Your task to perform on an android device: Search for 'The Girl on the Train' on Goodreads. Image 0: 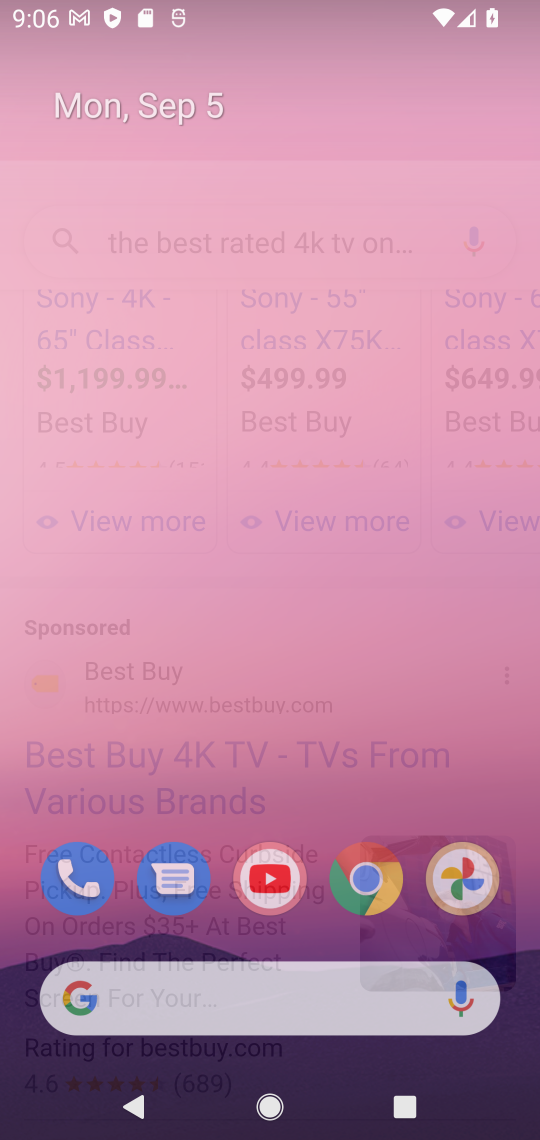
Step 0: press home button
Your task to perform on an android device: Search for 'The Girl on the Train' on Goodreads. Image 1: 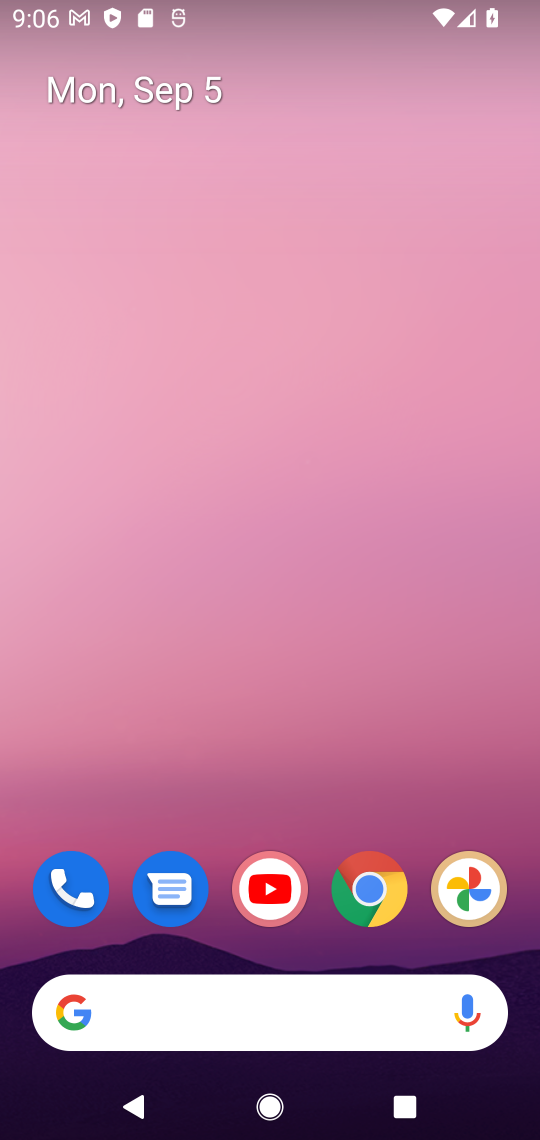
Step 1: click (249, 1013)
Your task to perform on an android device: Search for 'The Girl on the Train' on Goodreads. Image 2: 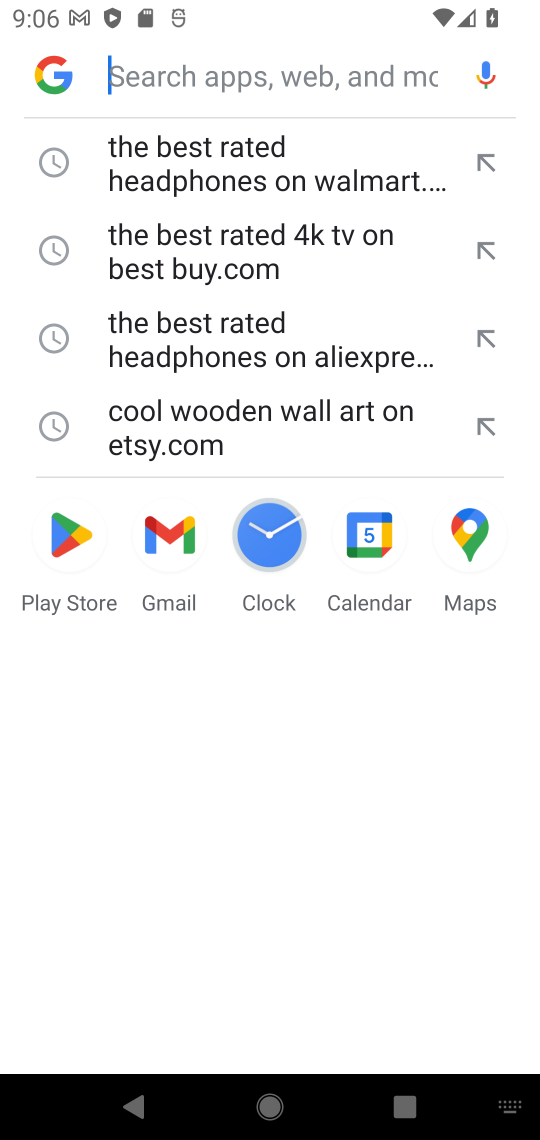
Step 2: type "The Girl on the Train' on Goodreads"
Your task to perform on an android device: Search for 'The Girl on the Train' on Goodreads. Image 3: 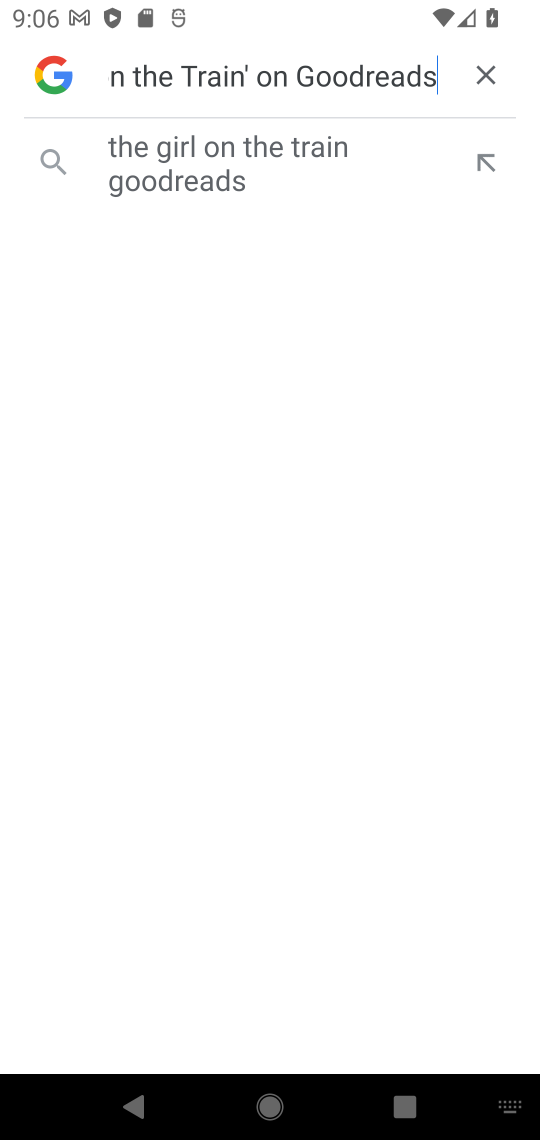
Step 3: click (178, 166)
Your task to perform on an android device: Search for 'The Girl on the Train' on Goodreads. Image 4: 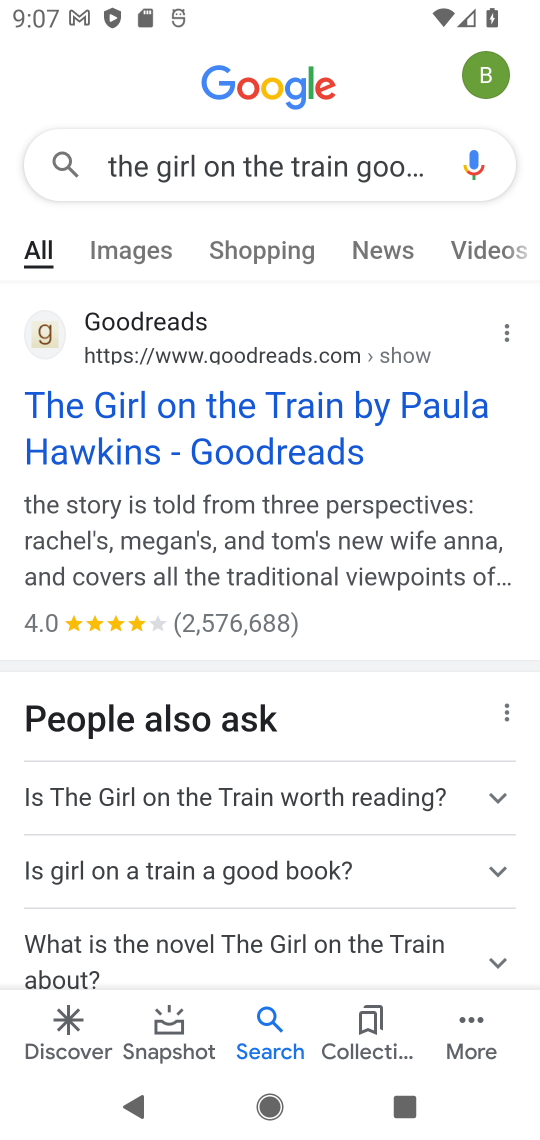
Step 4: click (104, 166)
Your task to perform on an android device: Search for 'The Girl on the Train' on Goodreads. Image 5: 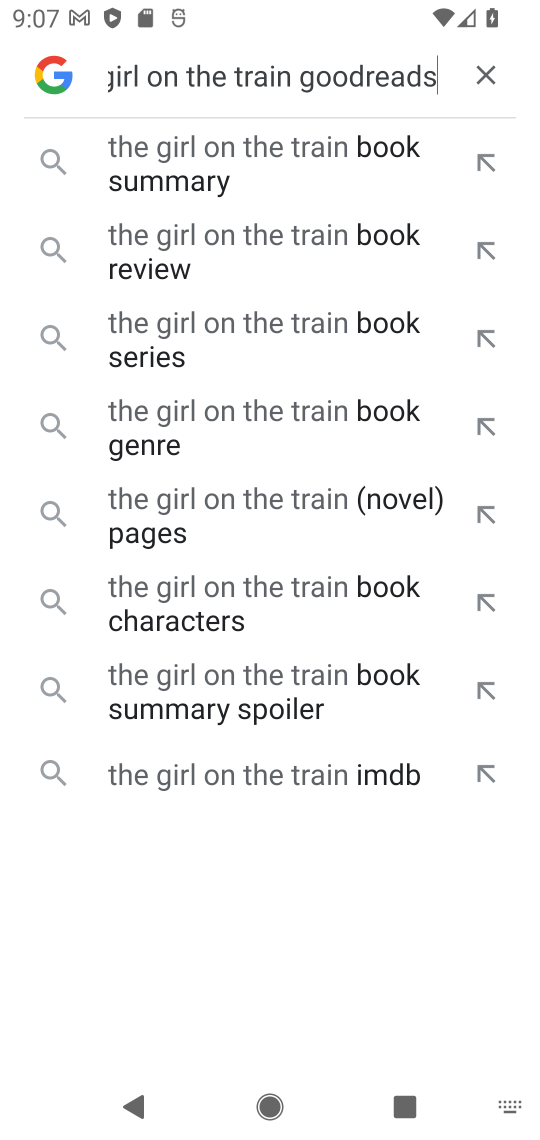
Step 5: click (112, 166)
Your task to perform on an android device: Search for 'The Girl on the Train' on Goodreads. Image 6: 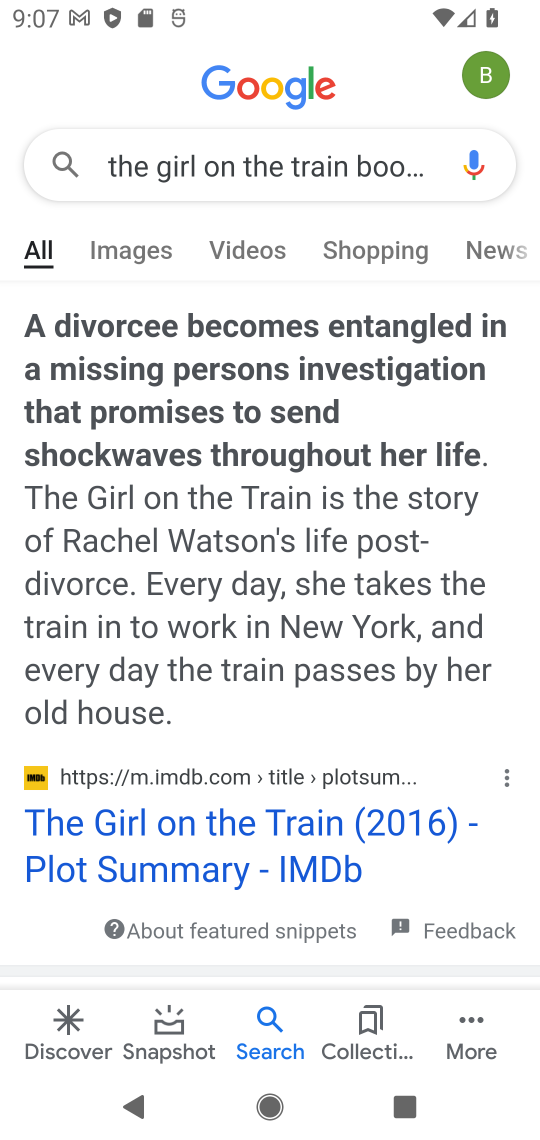
Step 6: click (88, 166)
Your task to perform on an android device: Search for 'The Girl on the Train' on Goodreads. Image 7: 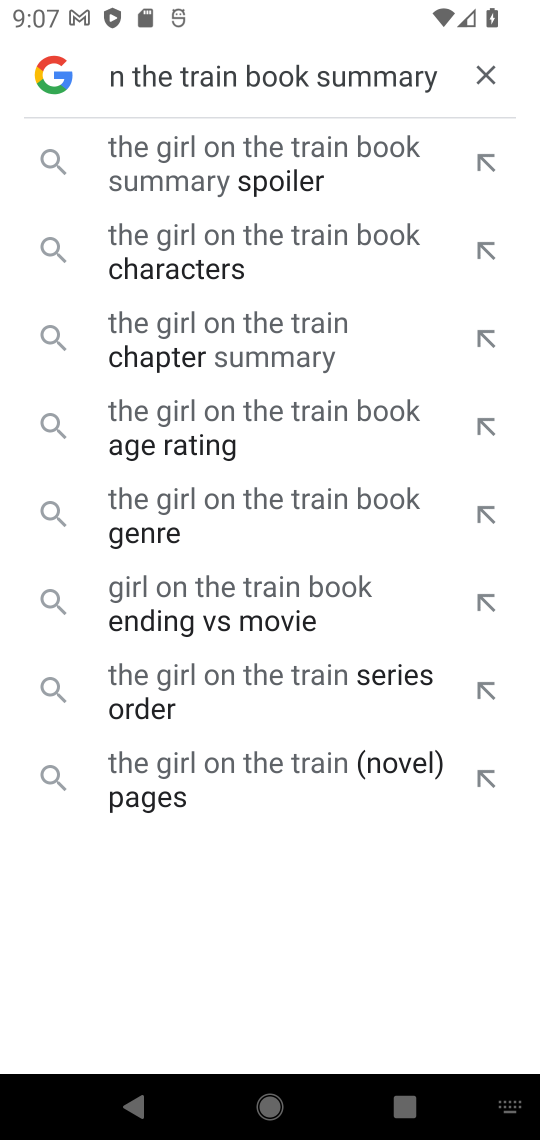
Step 7: click (219, 90)
Your task to perform on an android device: Search for 'The Girl on the Train' on Goodreads. Image 8: 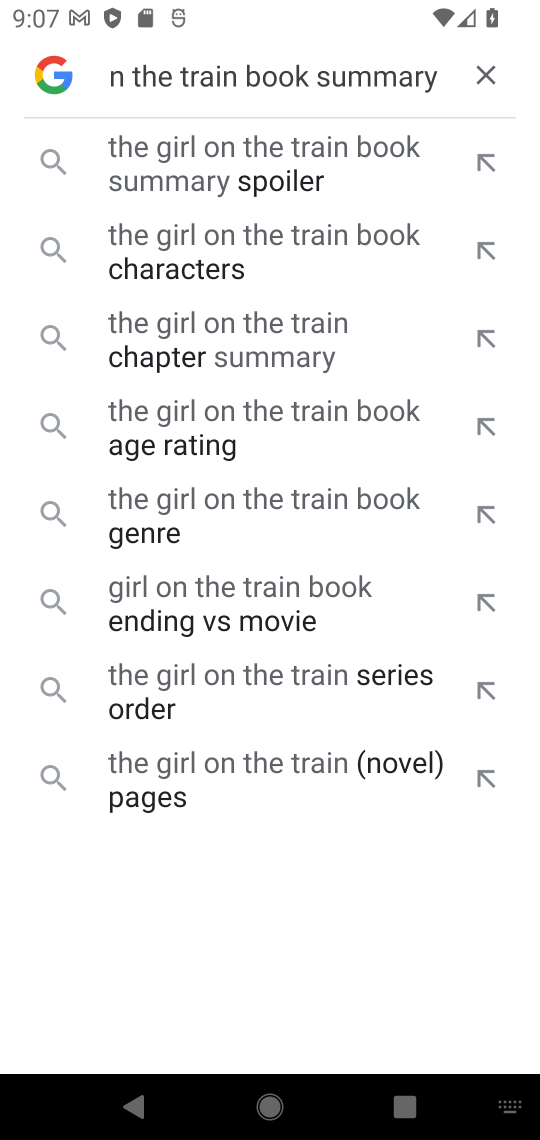
Step 8: click (488, 76)
Your task to perform on an android device: Search for 'The Girl on the Train' on Goodreads. Image 9: 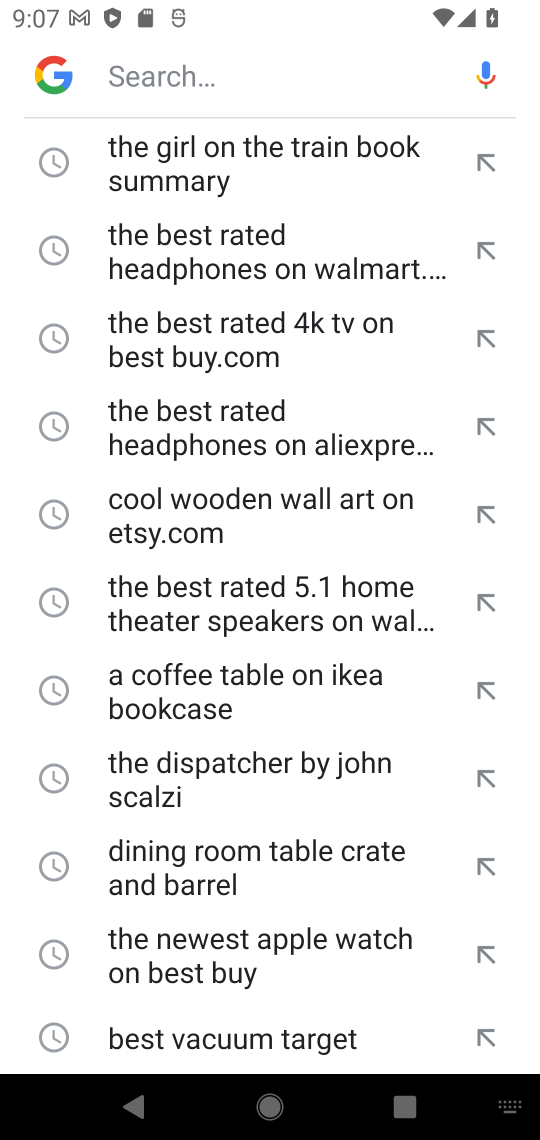
Step 9: click (183, 78)
Your task to perform on an android device: Search for 'The Girl on the Train' on Goodreads. Image 10: 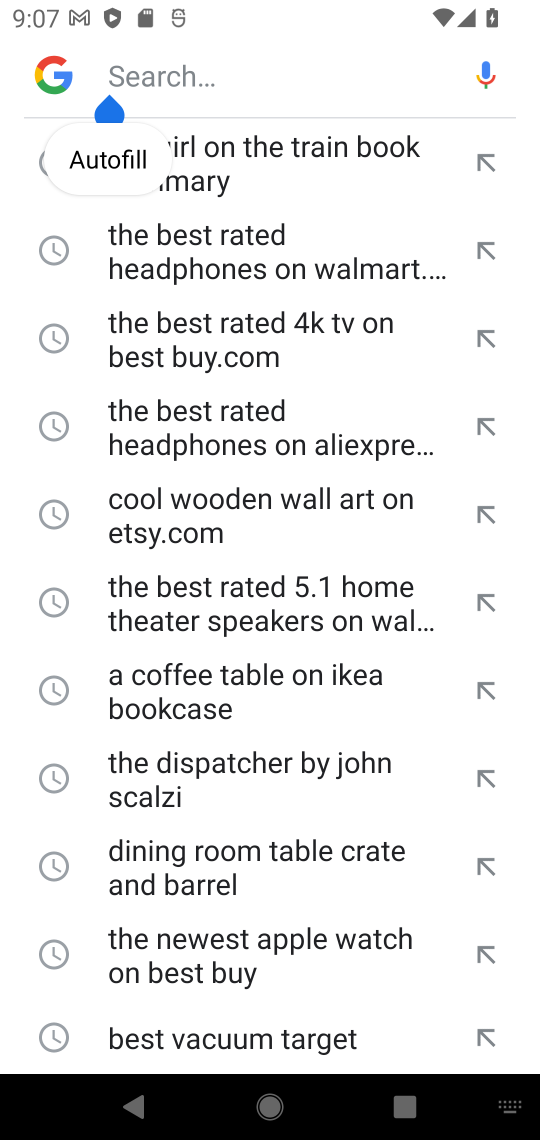
Step 10: click (183, 78)
Your task to perform on an android device: Search for 'The Girl on the Train' on Goodreads. Image 11: 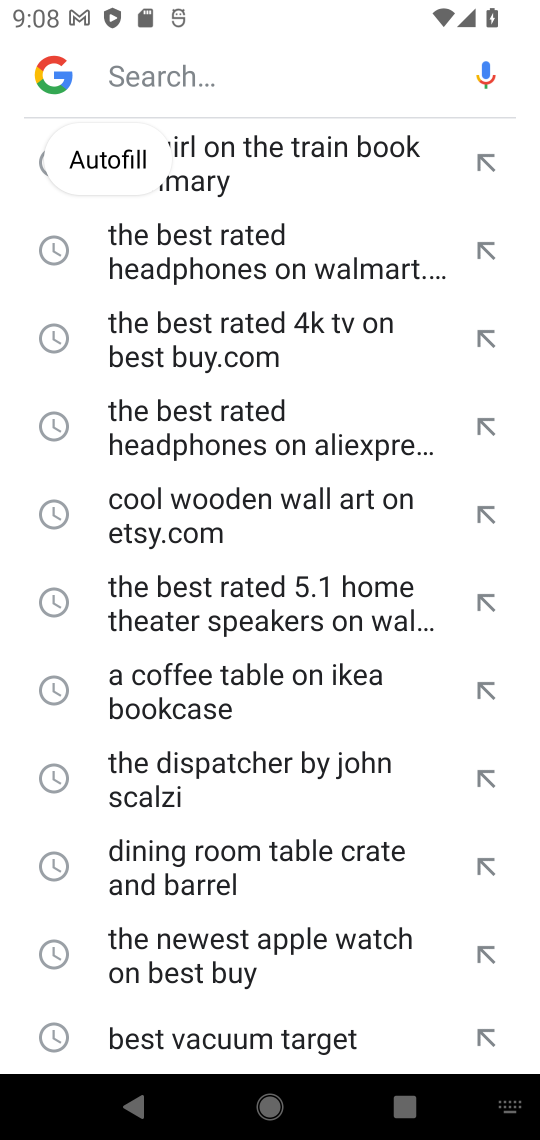
Step 11: type "The Girl on the Train on Goodreads"
Your task to perform on an android device: Search for 'The Girl on the Train' on Goodreads. Image 12: 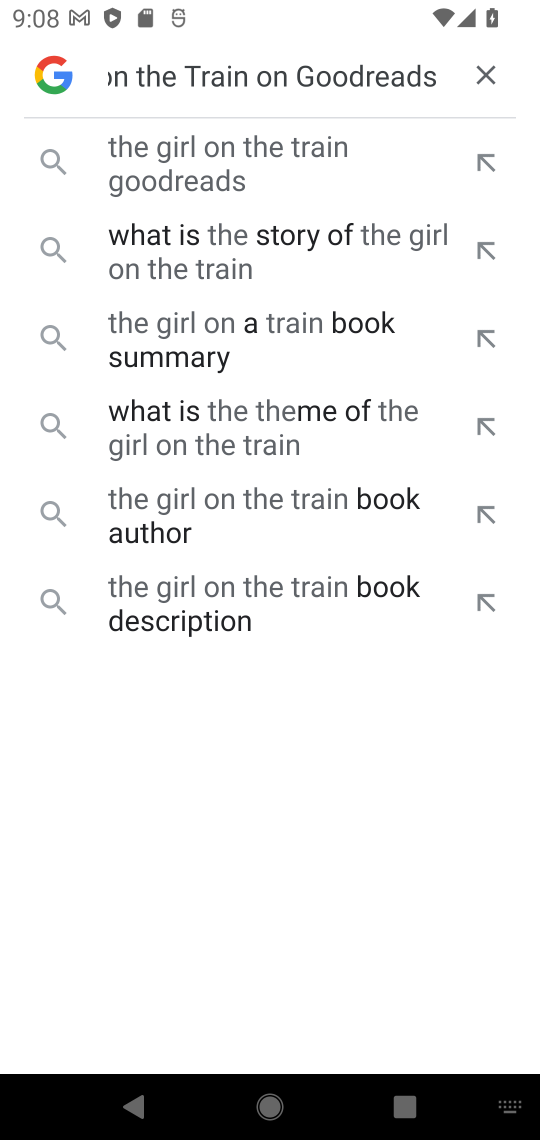
Step 12: click (250, 183)
Your task to perform on an android device: Search for 'The Girl on the Train' on Goodreads. Image 13: 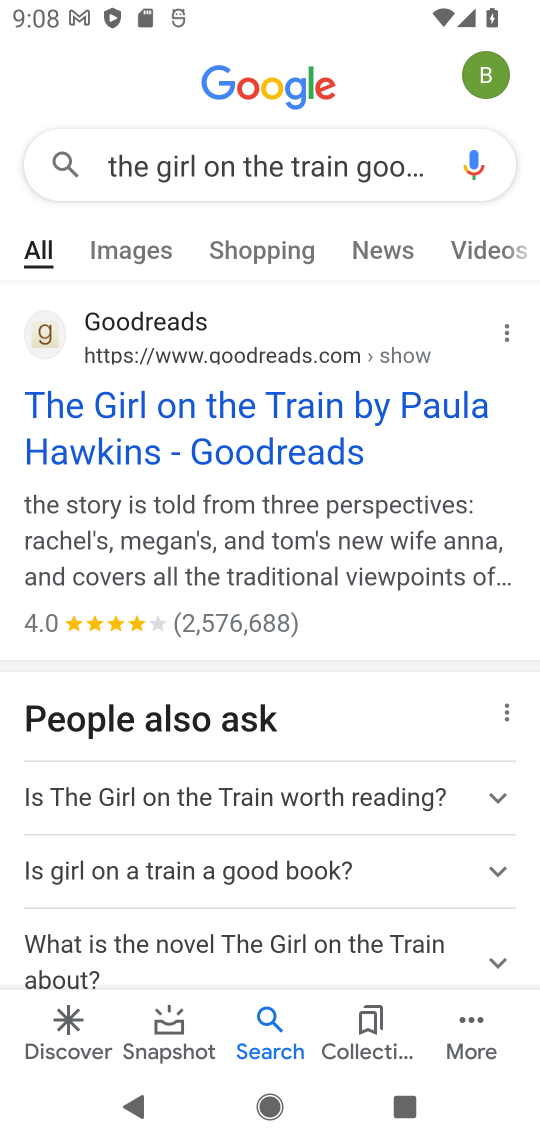
Step 13: click (413, 171)
Your task to perform on an android device: Search for 'The Girl on the Train' on Goodreads. Image 14: 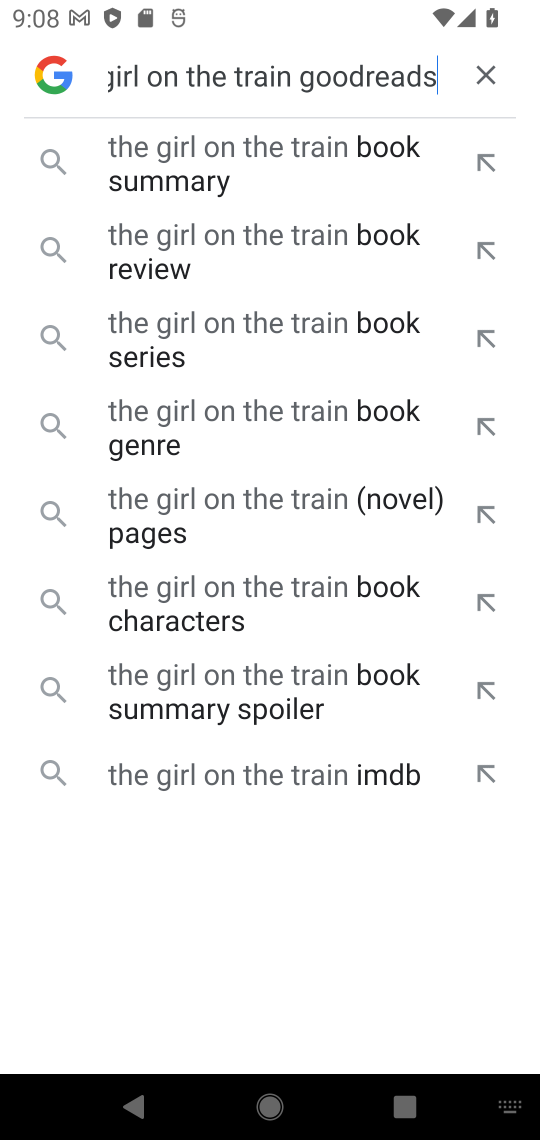
Step 14: click (201, 66)
Your task to perform on an android device: Search for 'The Girl on the Train' on Goodreads. Image 15: 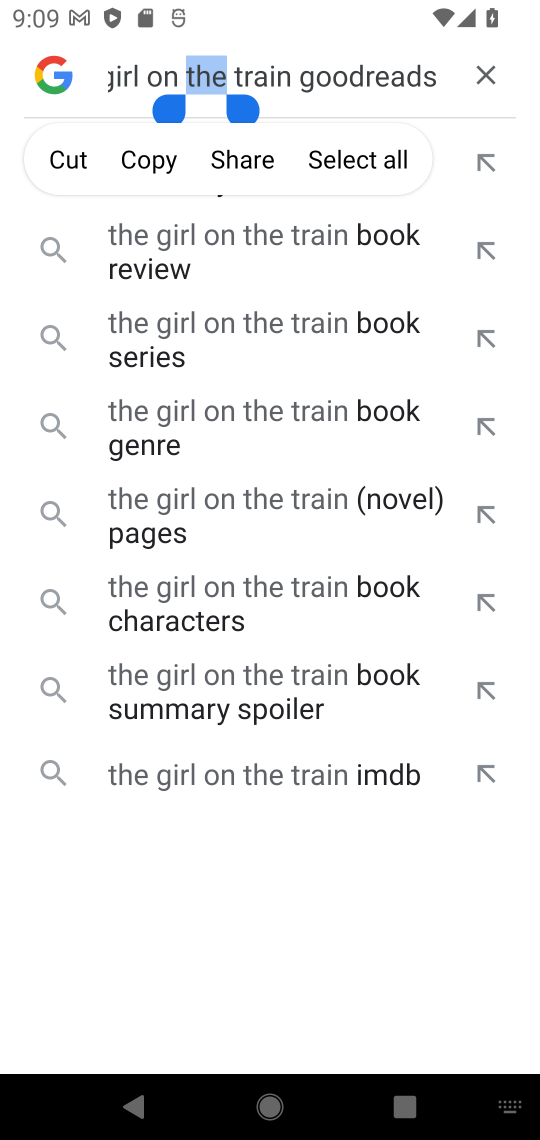
Step 15: click (260, 83)
Your task to perform on an android device: Search for 'The Girl on the Train' on Goodreads. Image 16: 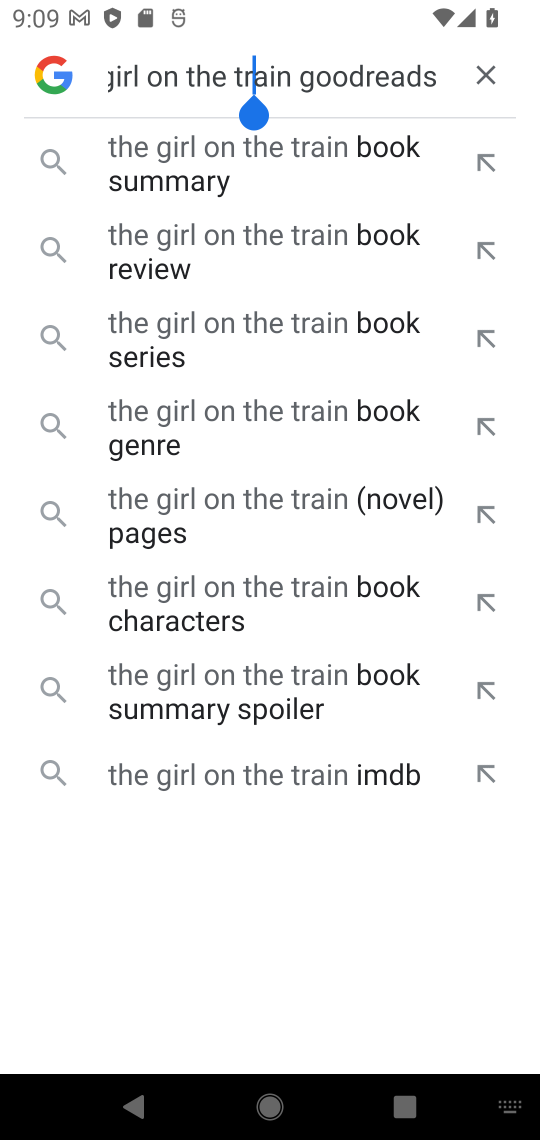
Step 16: click (260, 83)
Your task to perform on an android device: Search for 'The Girl on the Train' on Goodreads. Image 17: 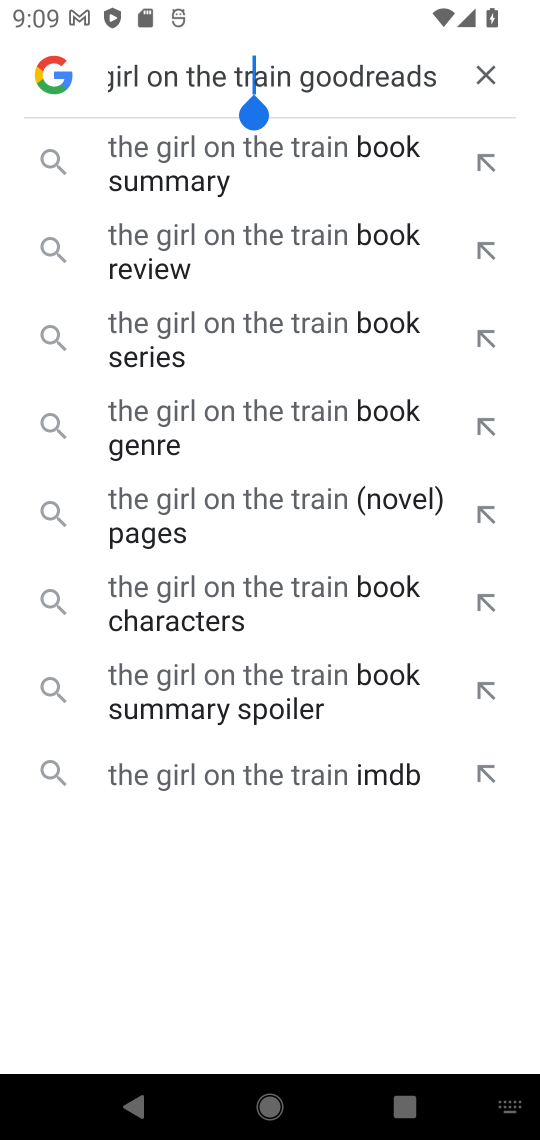
Step 17: click (264, 83)
Your task to perform on an android device: Search for 'The Girl on the Train' on Goodreads. Image 18: 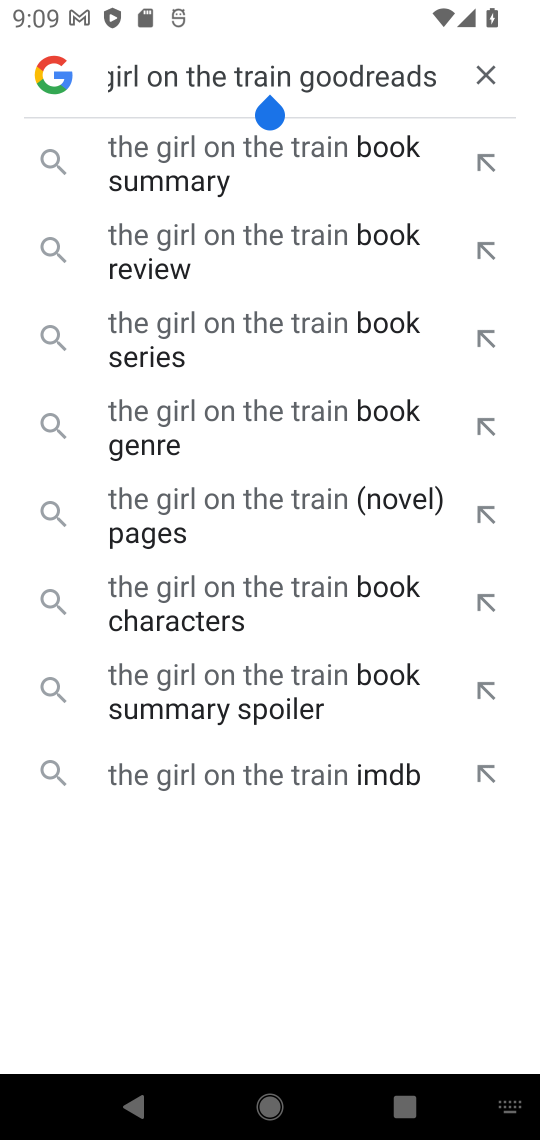
Step 18: click (264, 83)
Your task to perform on an android device: Search for 'The Girl on the Train' on Goodreads. Image 19: 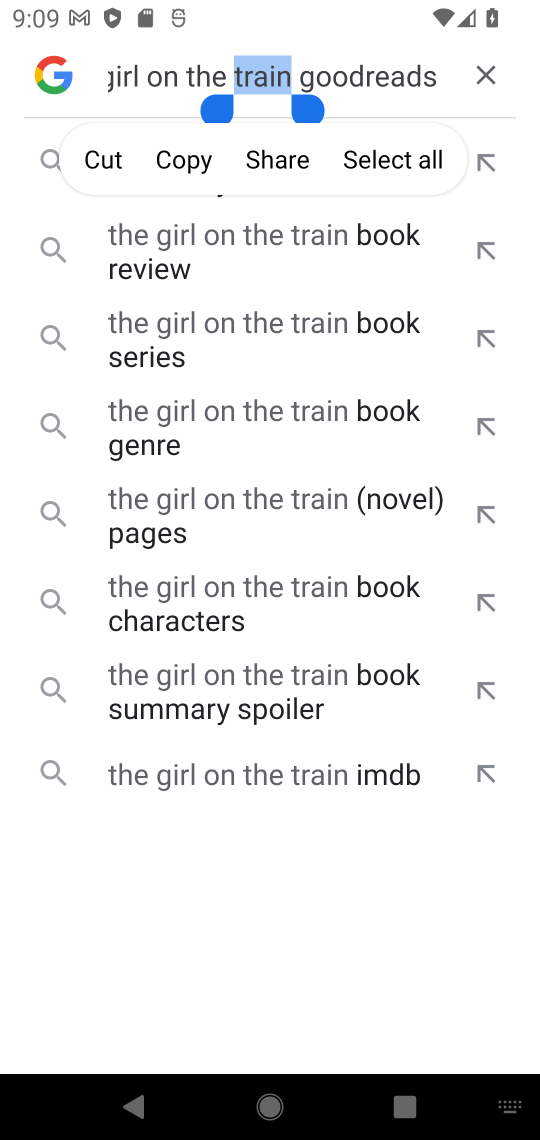
Step 19: click (374, 158)
Your task to perform on an android device: Search for 'The Girl on the Train' on Goodreads. Image 20: 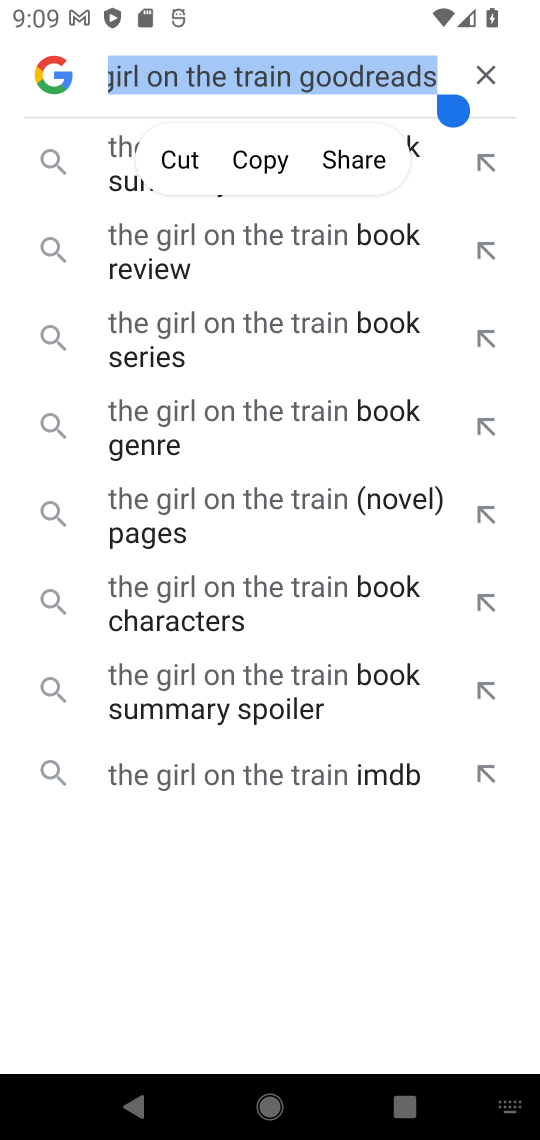
Step 20: click (269, 155)
Your task to perform on an android device: Search for 'The Girl on the Train' on Goodreads. Image 21: 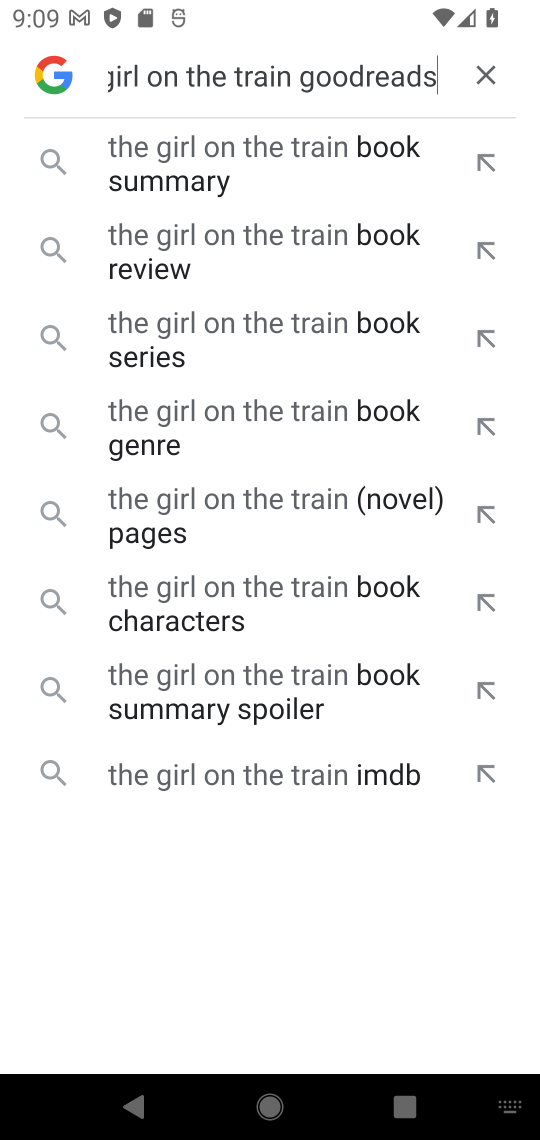
Step 21: click (478, 68)
Your task to perform on an android device: Search for 'The Girl on the Train' on Goodreads. Image 22: 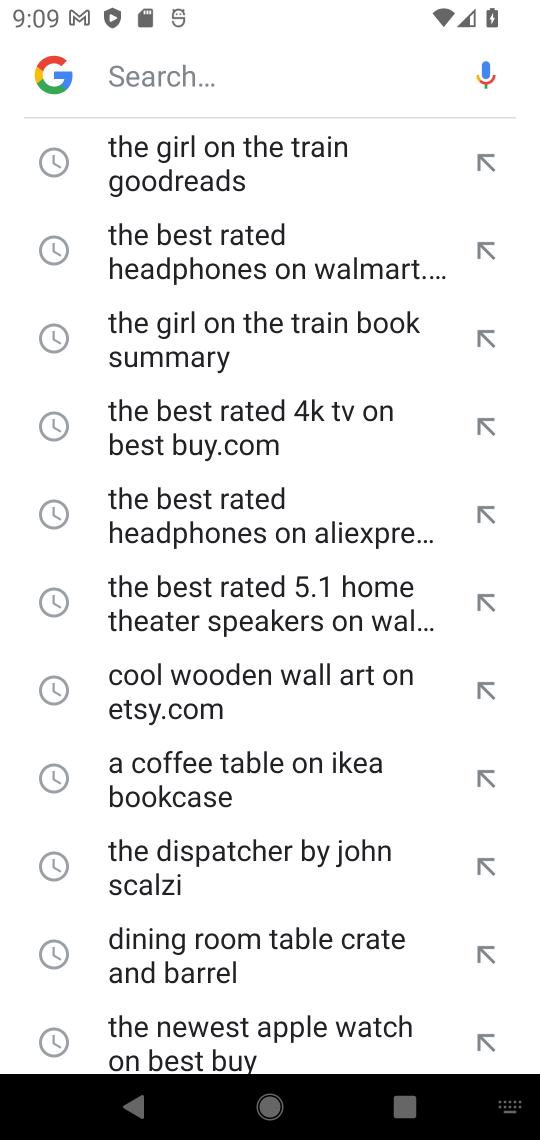
Step 22: type "The Girl on the Train' on Goodreads"
Your task to perform on an android device: Search for 'The Girl on the Train' on Goodreads. Image 23: 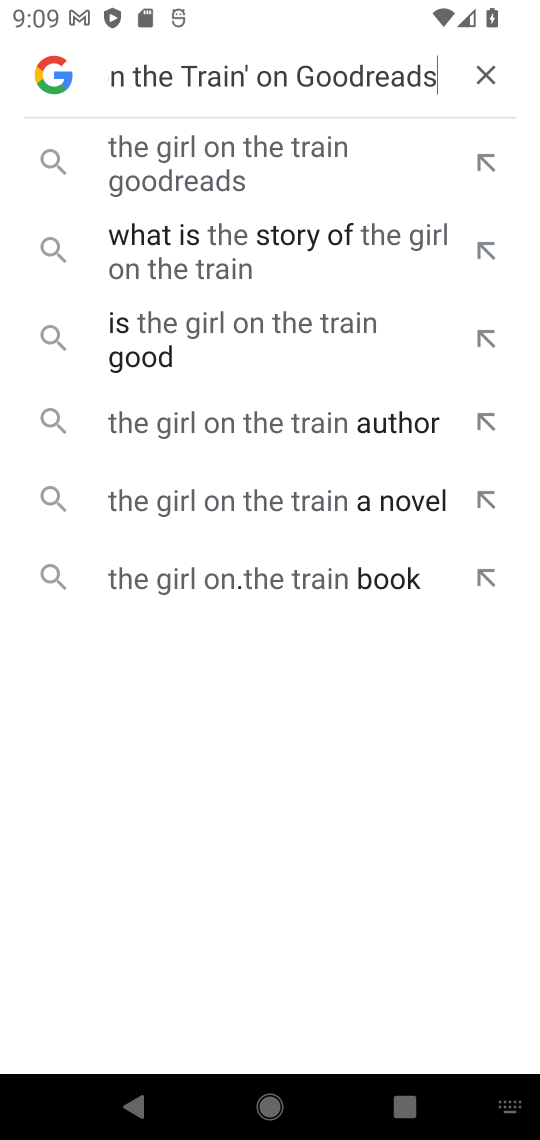
Step 23: click (203, 167)
Your task to perform on an android device: Search for 'The Girl on the Train' on Goodreads. Image 24: 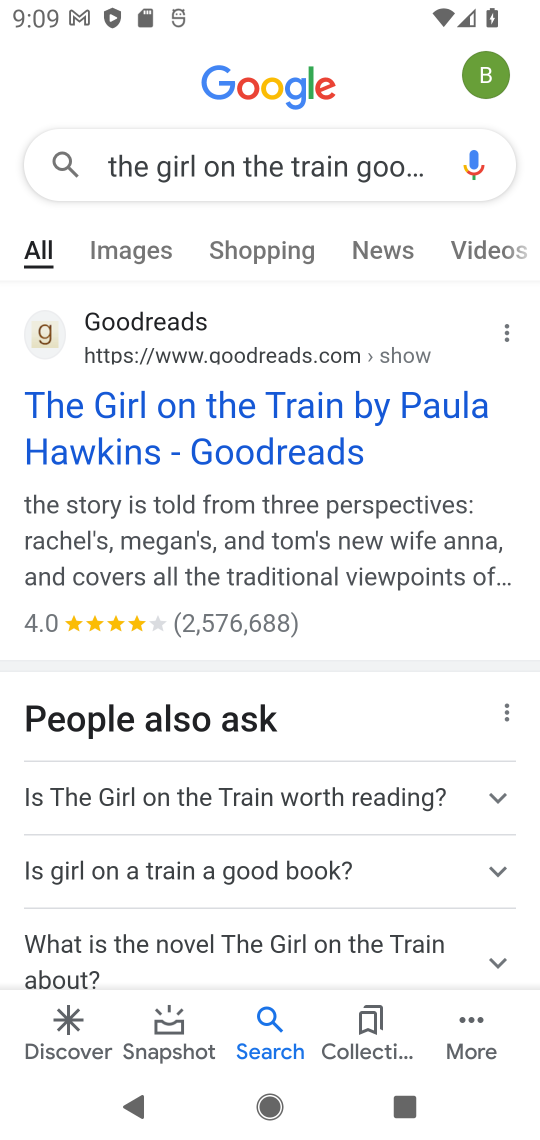
Step 24: drag from (398, 419) to (398, 329)
Your task to perform on an android device: Search for 'The Girl on the Train' on Goodreads. Image 25: 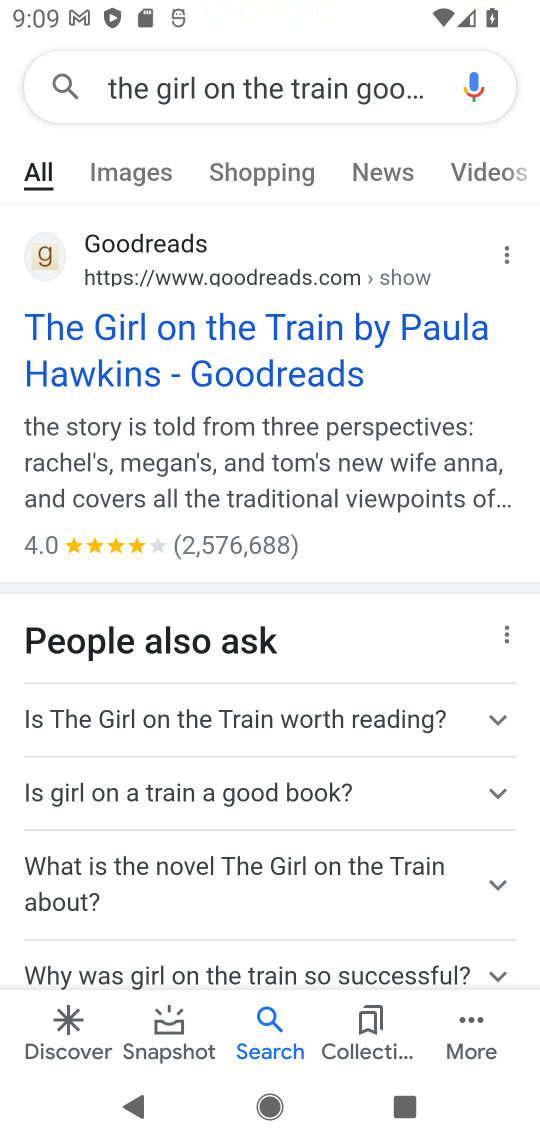
Step 25: drag from (328, 849) to (382, 351)
Your task to perform on an android device: Search for 'The Girl on the Train' on Goodreads. Image 26: 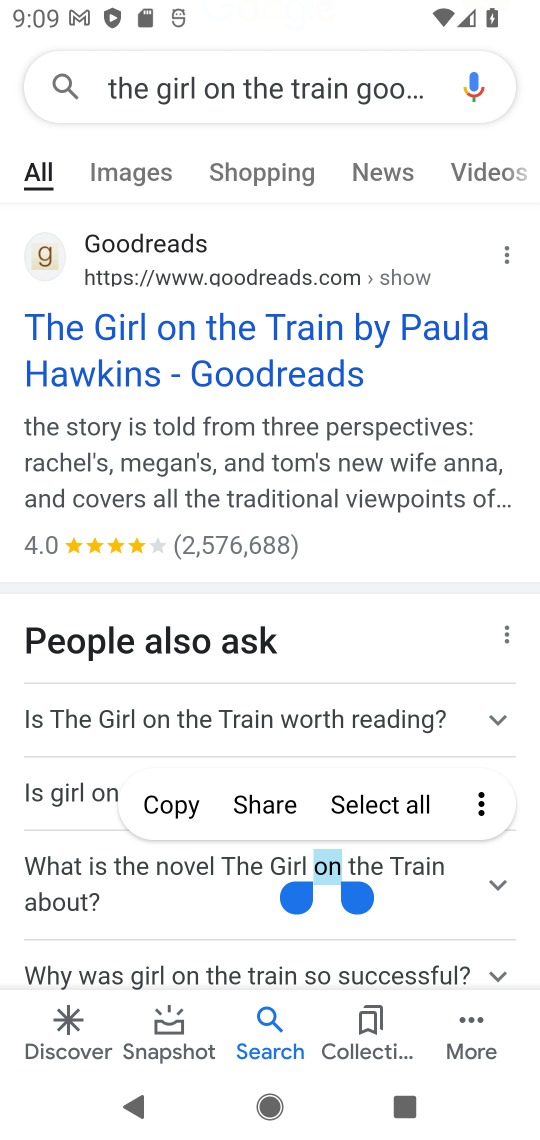
Step 26: click (393, 557)
Your task to perform on an android device: Search for 'The Girl on the Train' on Goodreads. Image 27: 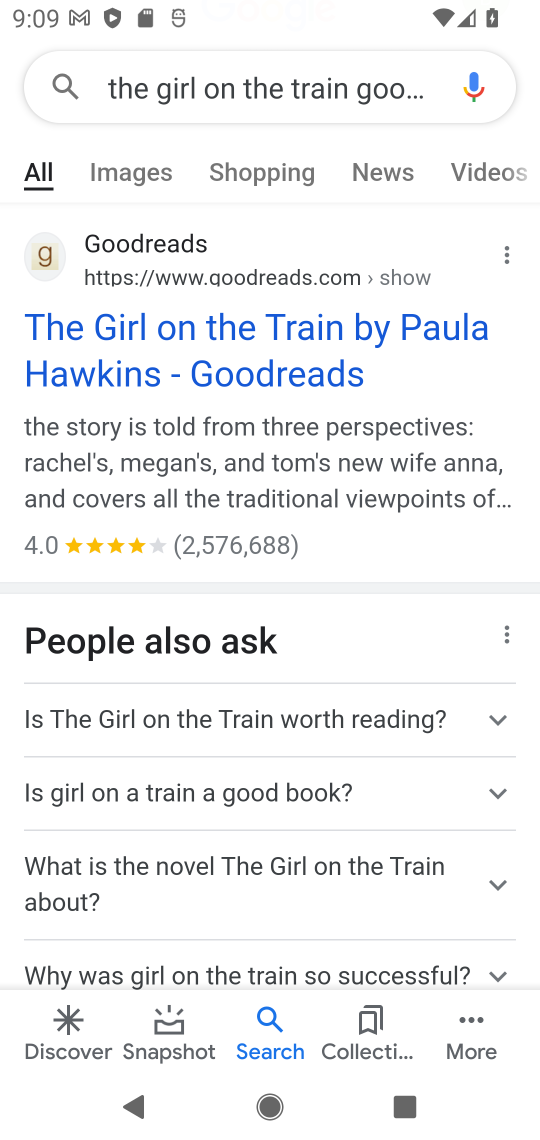
Step 27: task complete